Your task to perform on an android device: turn off airplane mode Image 0: 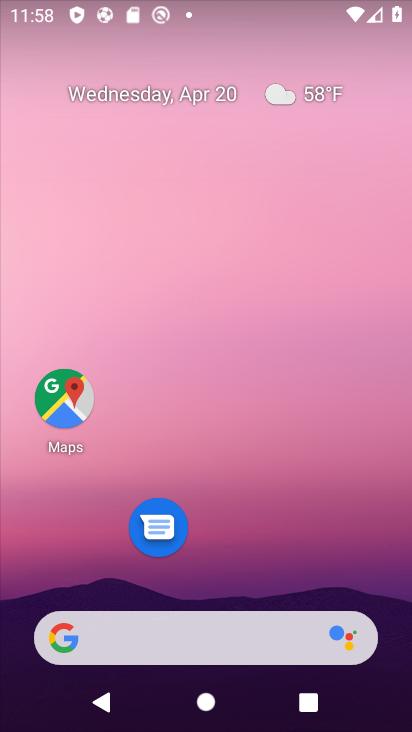
Step 0: drag from (223, 725) to (216, 117)
Your task to perform on an android device: turn off airplane mode Image 1: 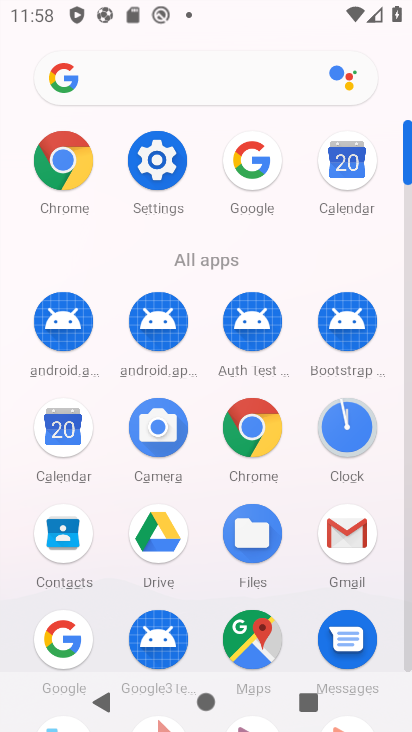
Step 1: click (152, 164)
Your task to perform on an android device: turn off airplane mode Image 2: 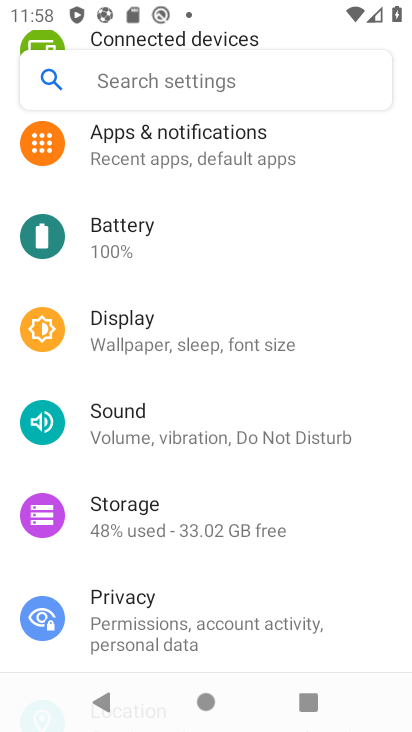
Step 2: drag from (207, 220) to (211, 499)
Your task to perform on an android device: turn off airplane mode Image 3: 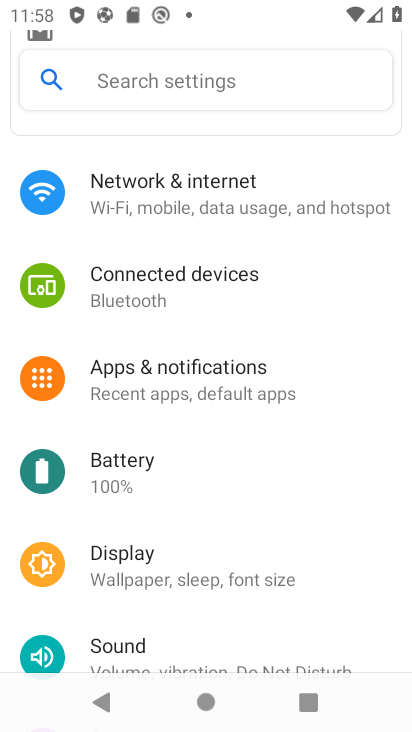
Step 3: click (163, 197)
Your task to perform on an android device: turn off airplane mode Image 4: 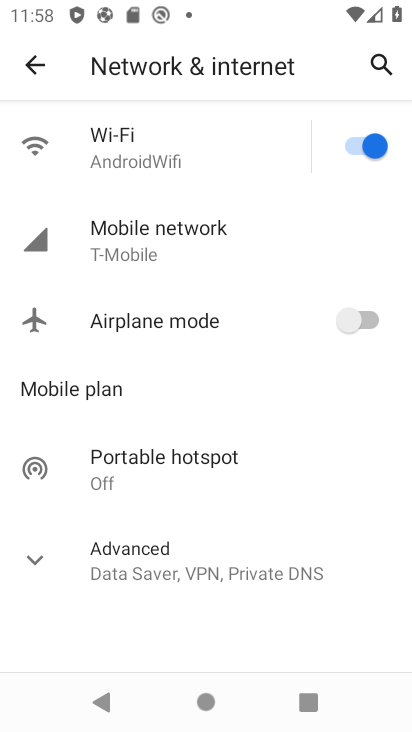
Step 4: task complete